Your task to perform on an android device: Open calendar and show me the first week of next month Image 0: 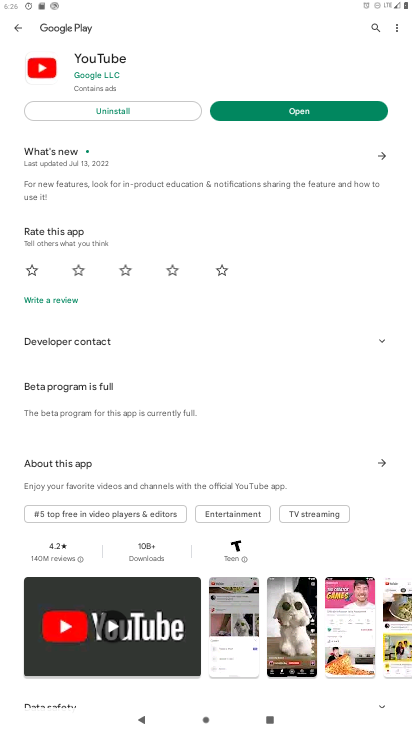
Step 0: press home button
Your task to perform on an android device: Open calendar and show me the first week of next month Image 1: 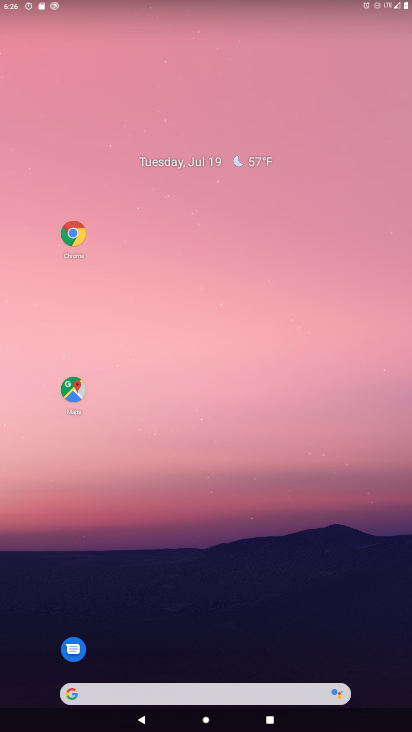
Step 1: drag from (151, 615) to (231, 241)
Your task to perform on an android device: Open calendar and show me the first week of next month Image 2: 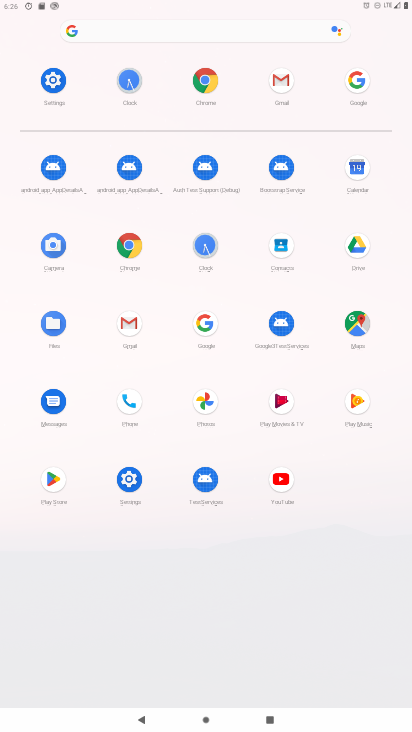
Step 2: click (355, 176)
Your task to perform on an android device: Open calendar and show me the first week of next month Image 3: 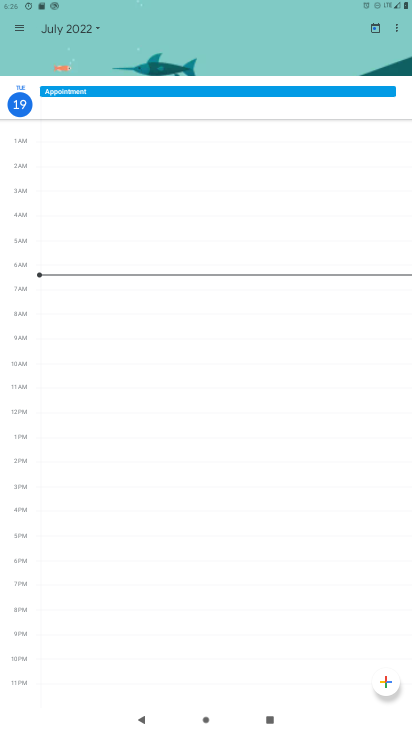
Step 3: click (66, 25)
Your task to perform on an android device: Open calendar and show me the first week of next month Image 4: 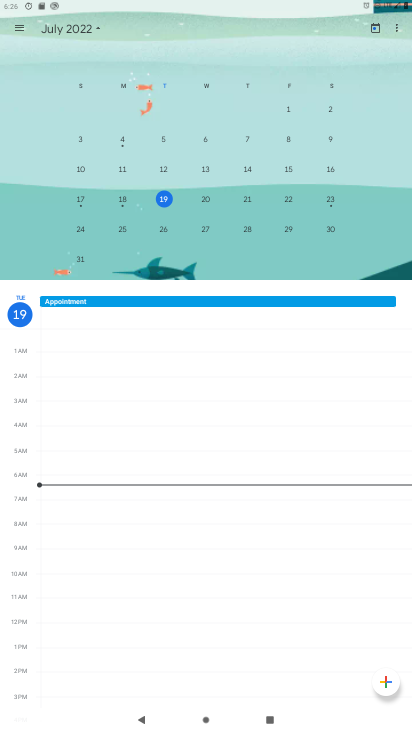
Step 4: click (14, 32)
Your task to perform on an android device: Open calendar and show me the first week of next month Image 5: 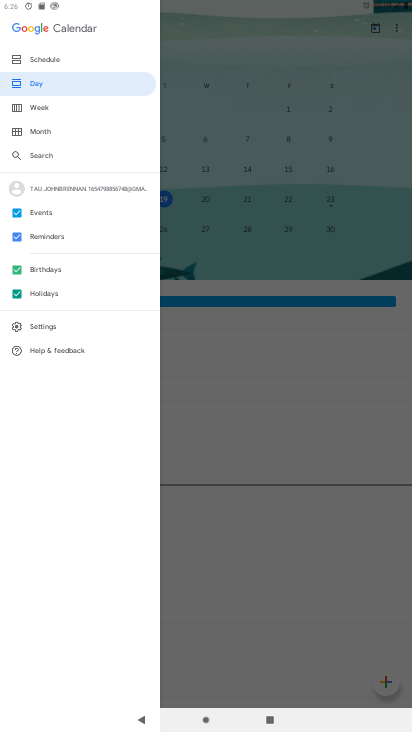
Step 5: click (42, 107)
Your task to perform on an android device: Open calendar and show me the first week of next month Image 6: 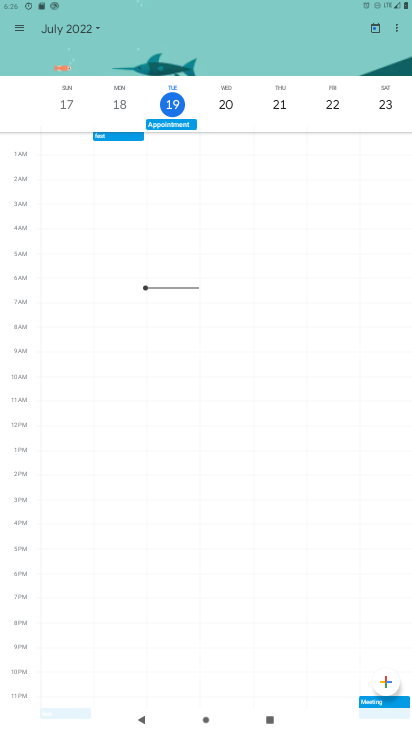
Step 6: click (75, 31)
Your task to perform on an android device: Open calendar and show me the first week of next month Image 7: 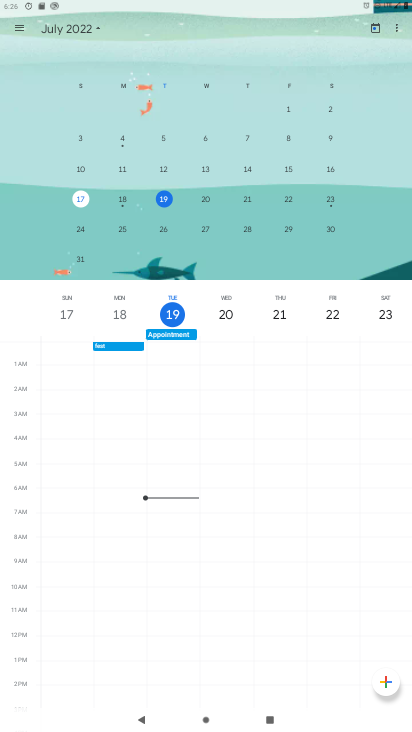
Step 7: drag from (289, 157) to (12, 180)
Your task to perform on an android device: Open calendar and show me the first week of next month Image 8: 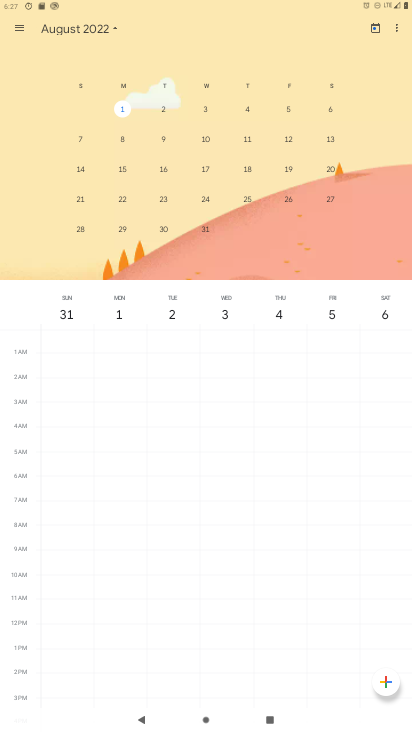
Step 8: click (126, 112)
Your task to perform on an android device: Open calendar and show me the first week of next month Image 9: 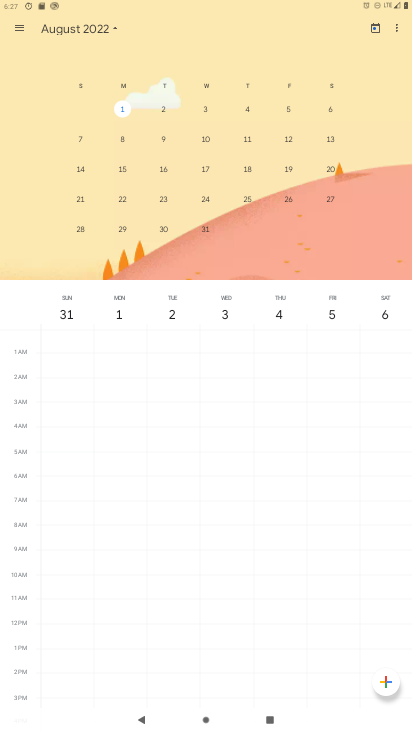
Step 9: task complete